Your task to perform on an android device: Open Chrome and go to settings Image 0: 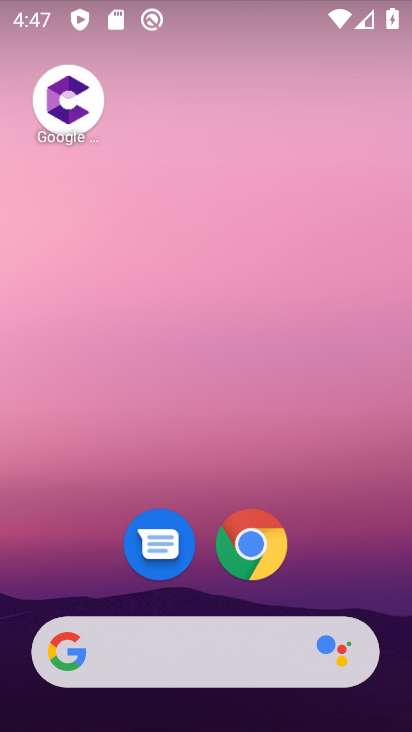
Step 0: drag from (199, 606) to (220, 0)
Your task to perform on an android device: Open Chrome and go to settings Image 1: 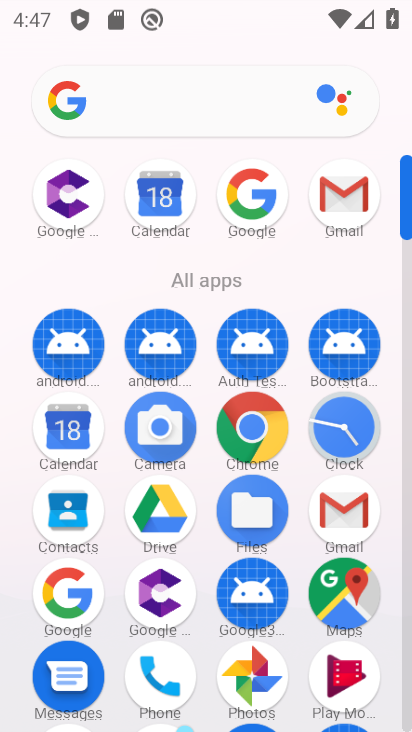
Step 1: click (248, 434)
Your task to perform on an android device: Open Chrome and go to settings Image 2: 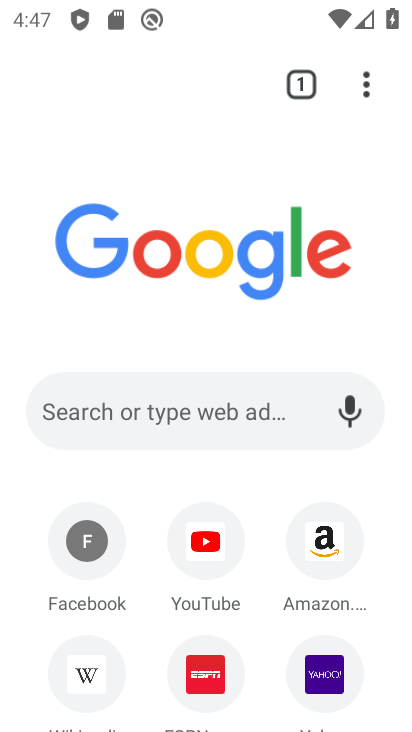
Step 2: click (360, 83)
Your task to perform on an android device: Open Chrome and go to settings Image 3: 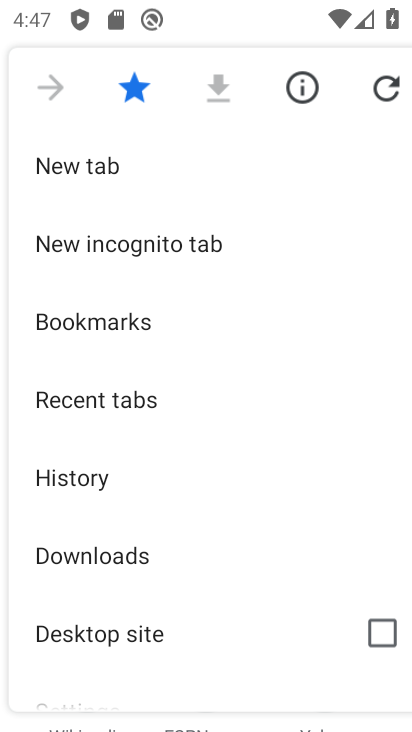
Step 3: drag from (229, 565) to (208, 99)
Your task to perform on an android device: Open Chrome and go to settings Image 4: 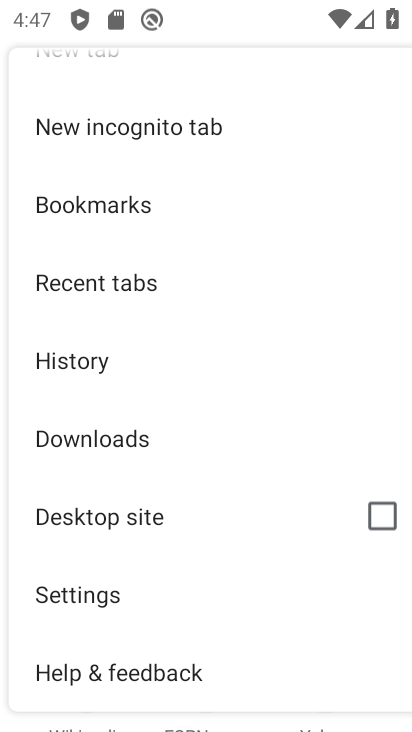
Step 4: click (112, 582)
Your task to perform on an android device: Open Chrome and go to settings Image 5: 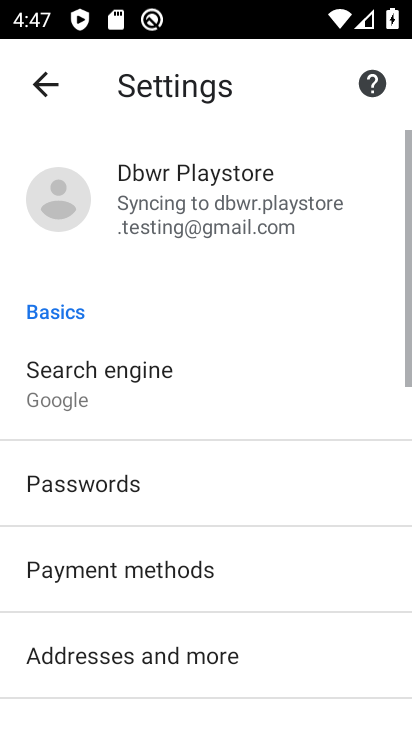
Step 5: task complete